Your task to perform on an android device: set the timer Image 0: 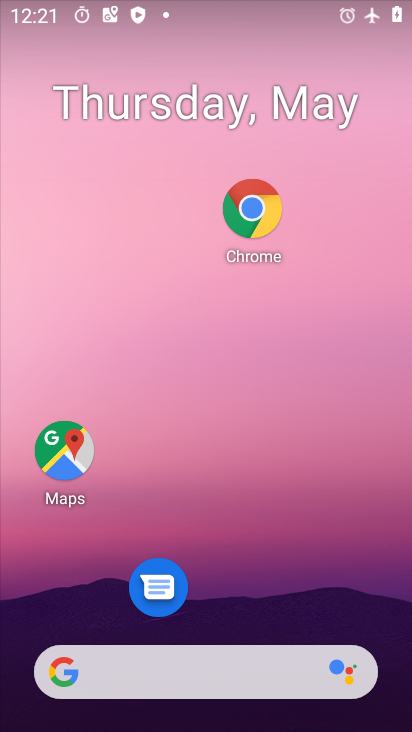
Step 0: drag from (231, 572) to (126, 0)
Your task to perform on an android device: set the timer Image 1: 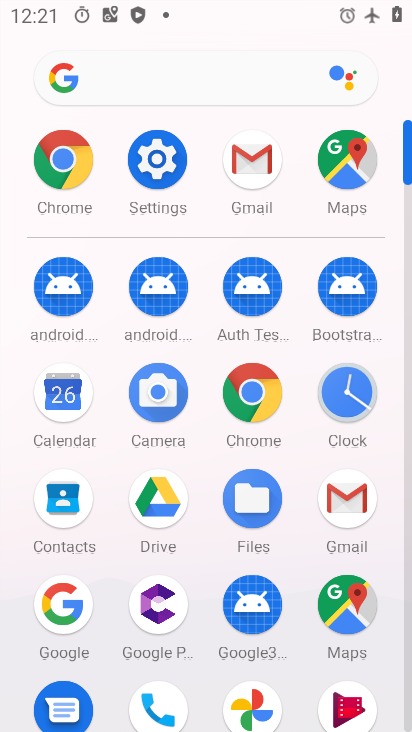
Step 1: click (364, 400)
Your task to perform on an android device: set the timer Image 2: 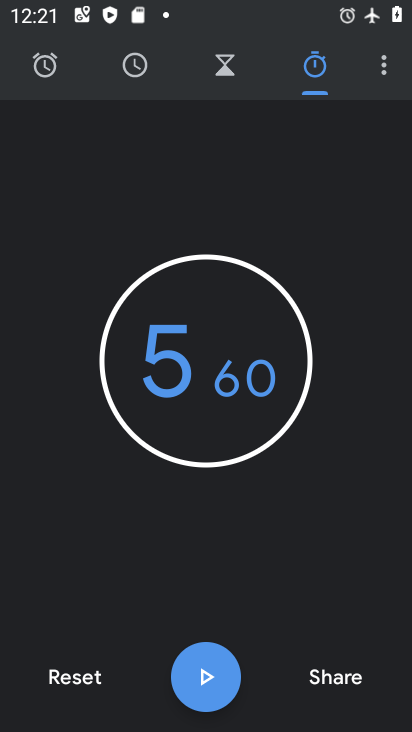
Step 2: click (219, 90)
Your task to perform on an android device: set the timer Image 3: 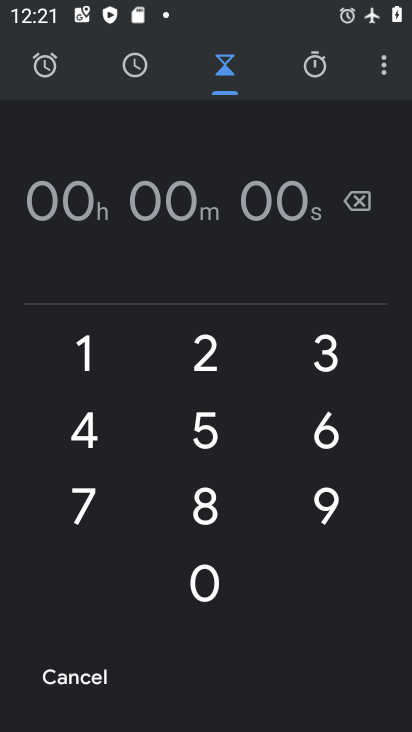
Step 3: click (205, 364)
Your task to perform on an android device: set the timer Image 4: 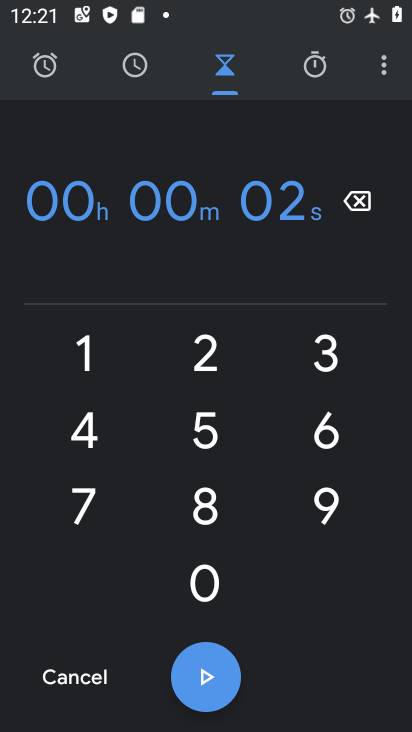
Step 4: click (214, 578)
Your task to perform on an android device: set the timer Image 5: 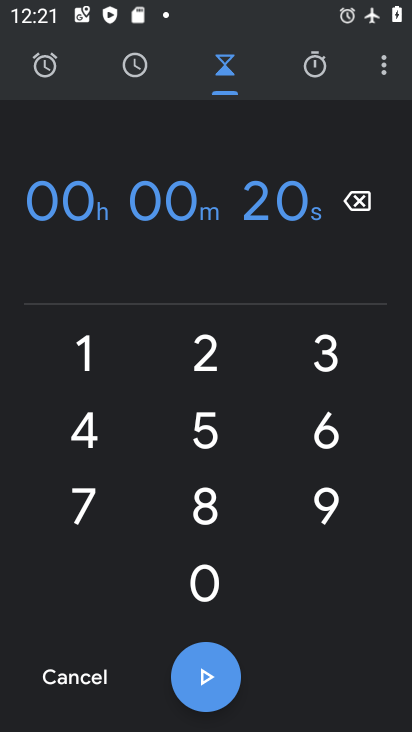
Step 5: click (208, 362)
Your task to perform on an android device: set the timer Image 6: 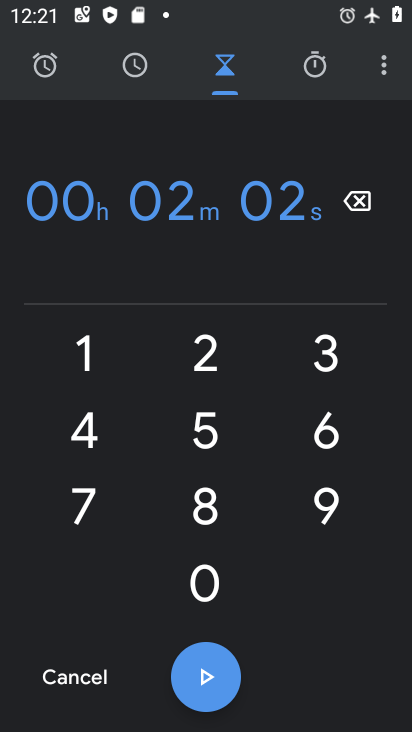
Step 6: click (202, 591)
Your task to perform on an android device: set the timer Image 7: 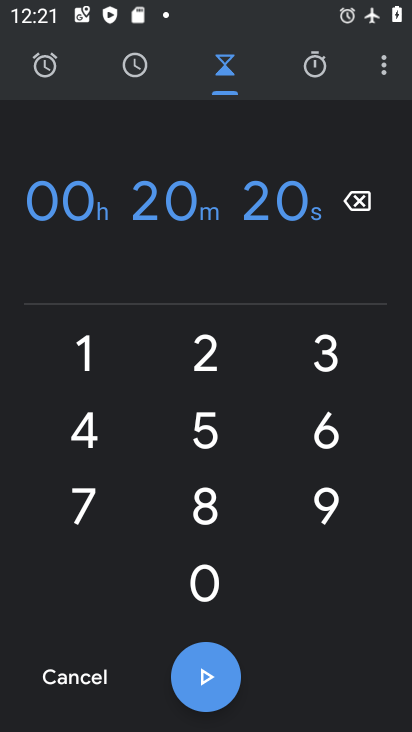
Step 7: click (211, 686)
Your task to perform on an android device: set the timer Image 8: 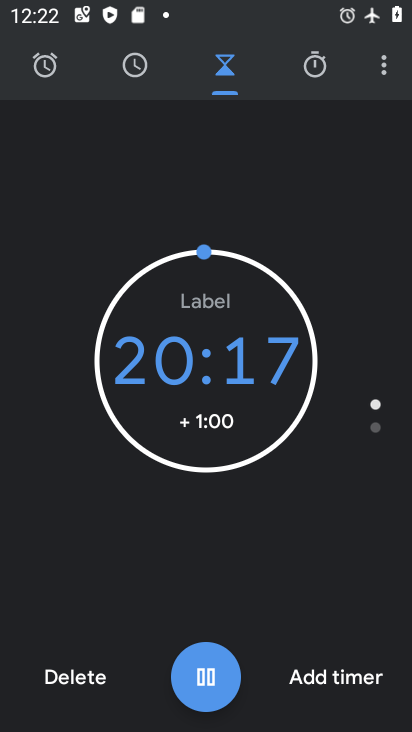
Step 8: task complete